Your task to perform on an android device: move a message to another label in the gmail app Image 0: 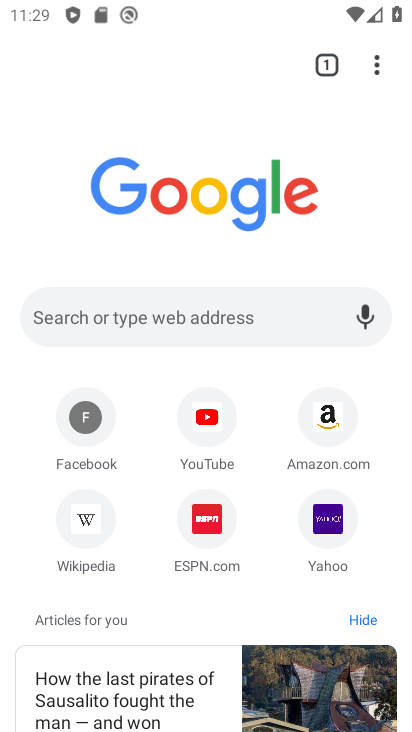
Step 0: press home button
Your task to perform on an android device: move a message to another label in the gmail app Image 1: 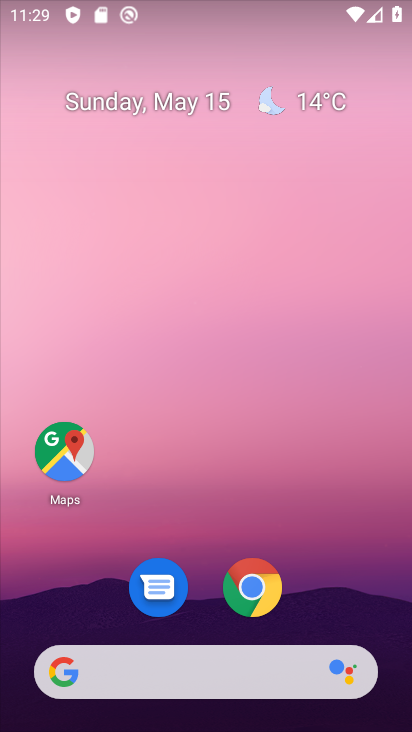
Step 1: drag from (311, 618) to (315, 42)
Your task to perform on an android device: move a message to another label in the gmail app Image 2: 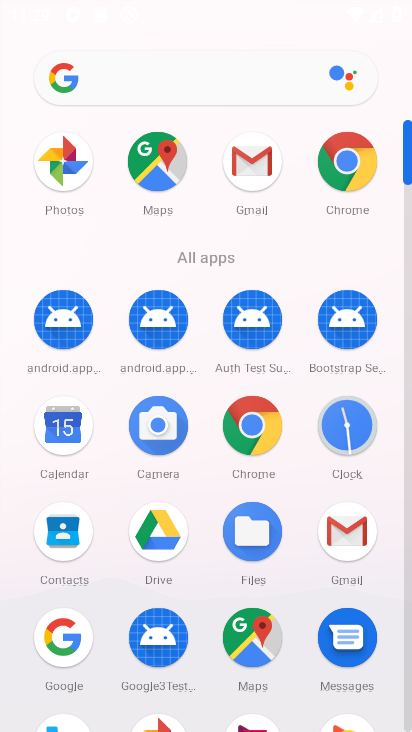
Step 2: click (243, 164)
Your task to perform on an android device: move a message to another label in the gmail app Image 3: 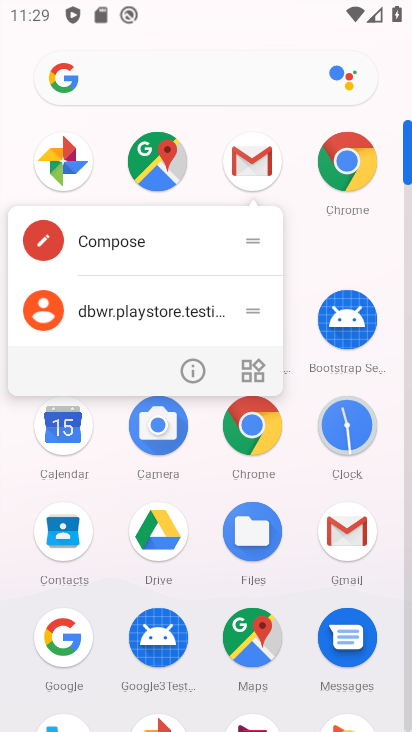
Step 3: click (244, 165)
Your task to perform on an android device: move a message to another label in the gmail app Image 4: 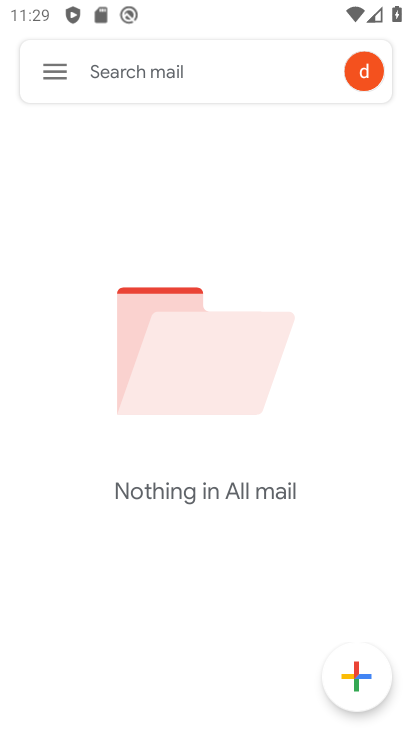
Step 4: task complete